Your task to perform on an android device: open app "Messages" (install if not already installed) Image 0: 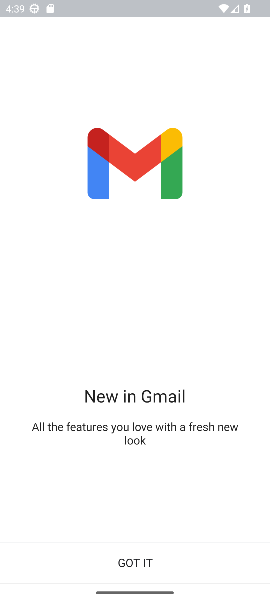
Step 0: press home button
Your task to perform on an android device: open app "Messages" (install if not already installed) Image 1: 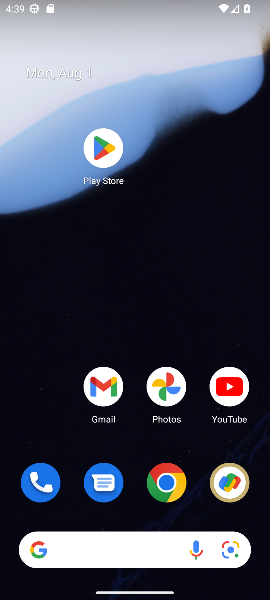
Step 1: click (109, 150)
Your task to perform on an android device: open app "Messages" (install if not already installed) Image 2: 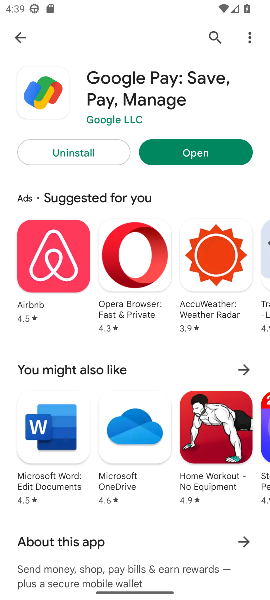
Step 2: click (212, 33)
Your task to perform on an android device: open app "Messages" (install if not already installed) Image 3: 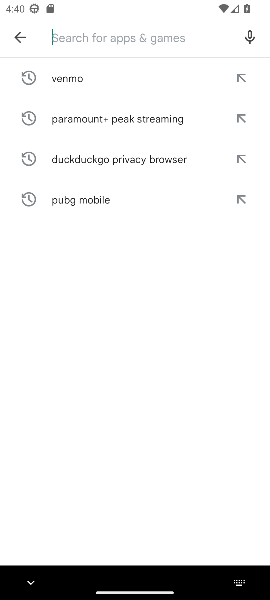
Step 3: type "Messages"
Your task to perform on an android device: open app "Messages" (install if not already installed) Image 4: 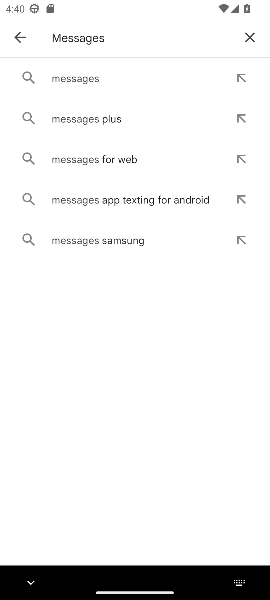
Step 4: click (91, 78)
Your task to perform on an android device: open app "Messages" (install if not already installed) Image 5: 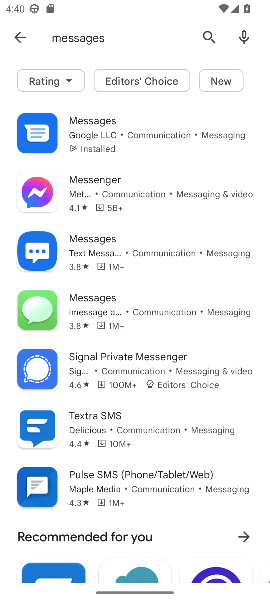
Step 5: click (105, 143)
Your task to perform on an android device: open app "Messages" (install if not already installed) Image 6: 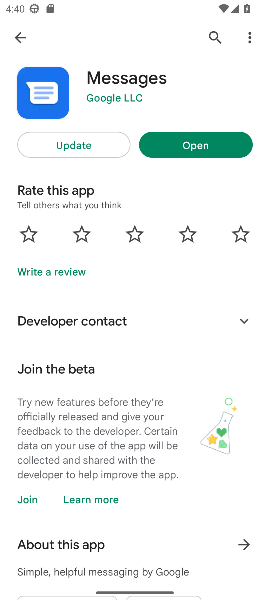
Step 6: task complete